Your task to perform on an android device: change notifications settings Image 0: 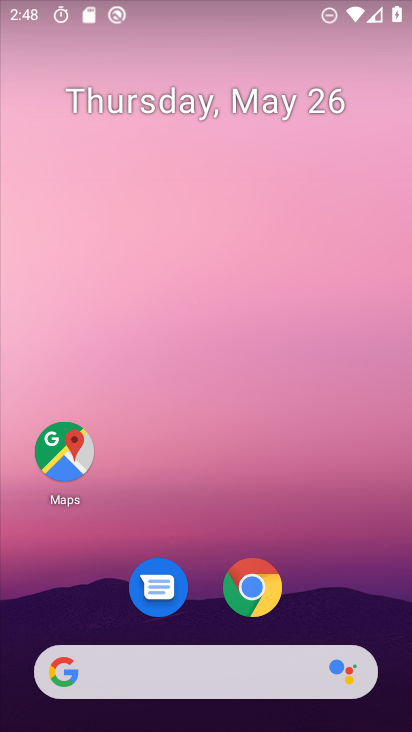
Step 0: drag from (316, 528) to (293, 173)
Your task to perform on an android device: change notifications settings Image 1: 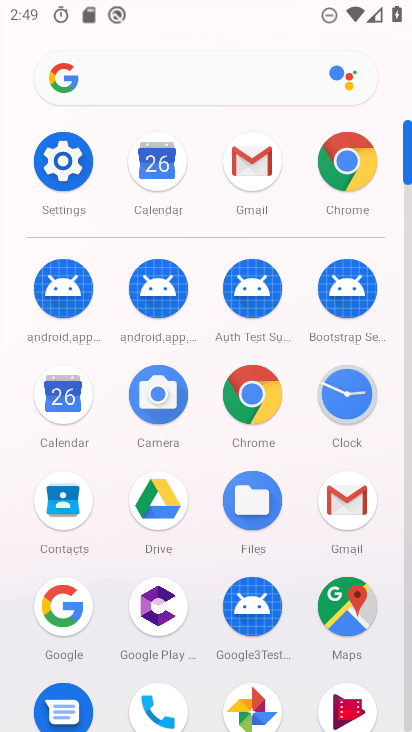
Step 1: click (83, 169)
Your task to perform on an android device: change notifications settings Image 2: 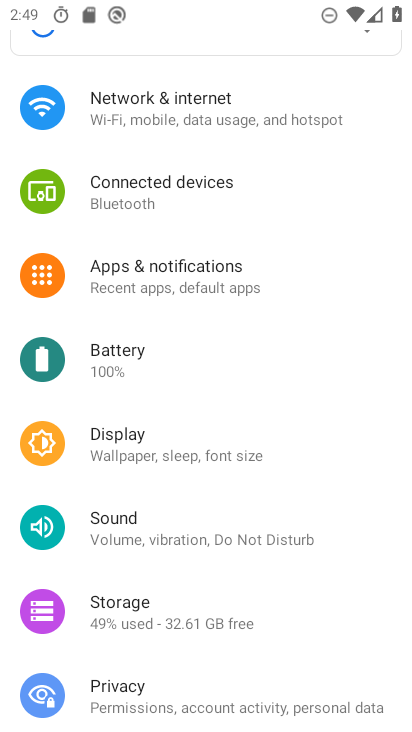
Step 2: click (173, 267)
Your task to perform on an android device: change notifications settings Image 3: 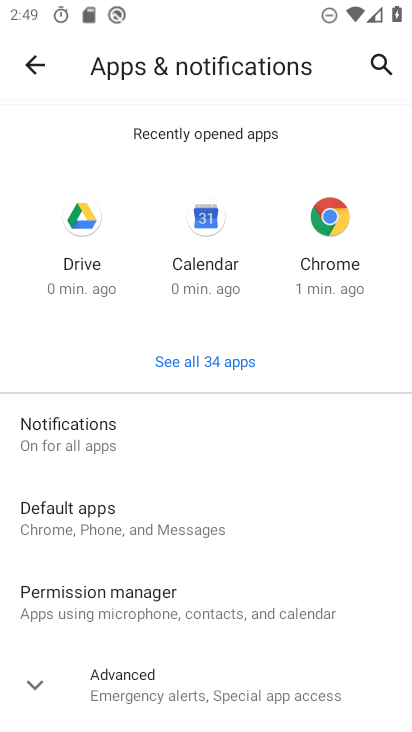
Step 3: click (126, 443)
Your task to perform on an android device: change notifications settings Image 4: 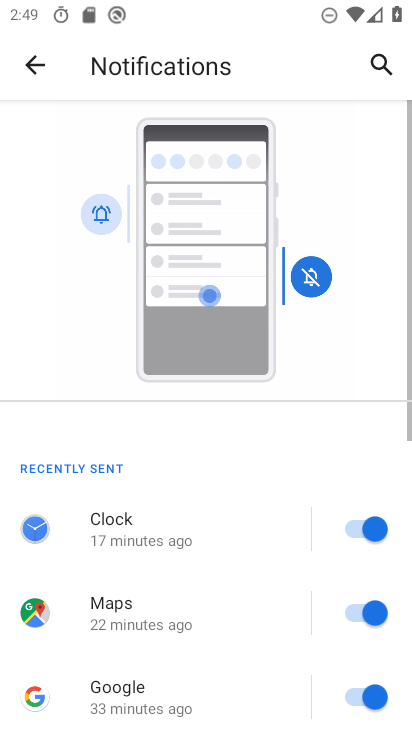
Step 4: drag from (127, 441) to (198, 139)
Your task to perform on an android device: change notifications settings Image 5: 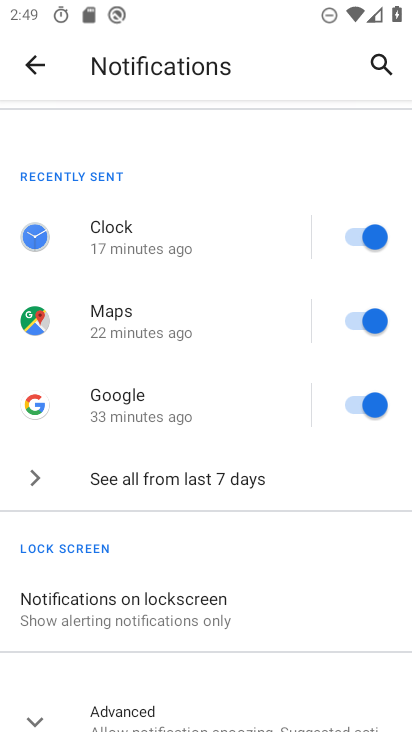
Step 5: drag from (153, 553) to (276, 133)
Your task to perform on an android device: change notifications settings Image 6: 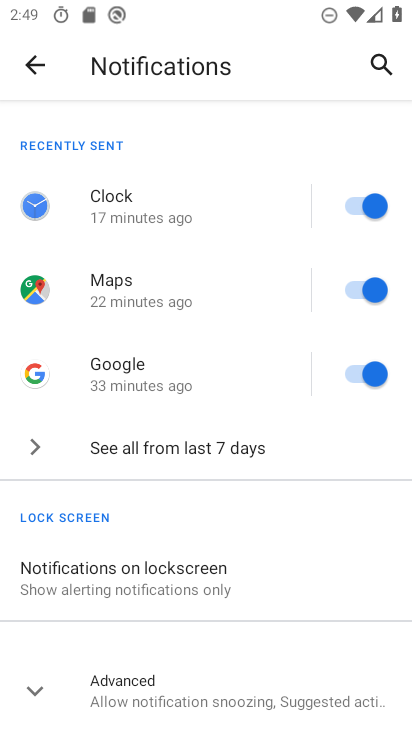
Step 6: click (123, 670)
Your task to perform on an android device: change notifications settings Image 7: 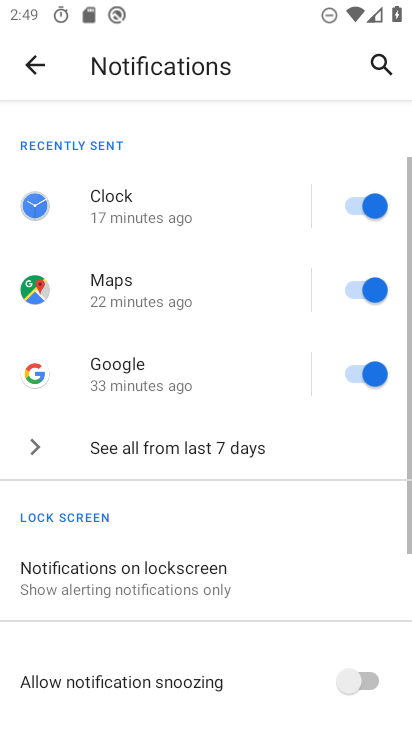
Step 7: drag from (197, 641) to (279, 276)
Your task to perform on an android device: change notifications settings Image 8: 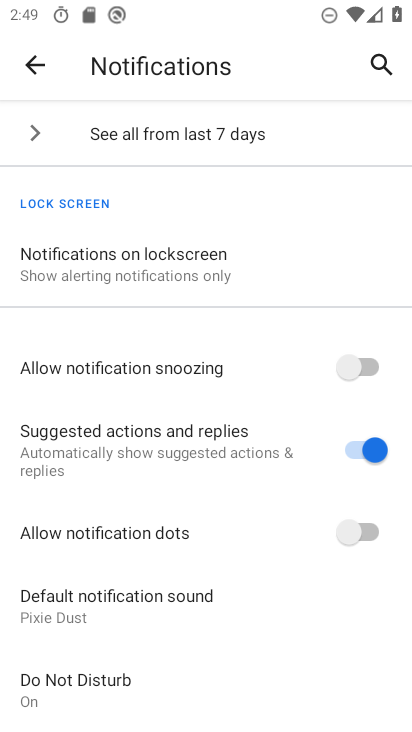
Step 8: click (373, 369)
Your task to perform on an android device: change notifications settings Image 9: 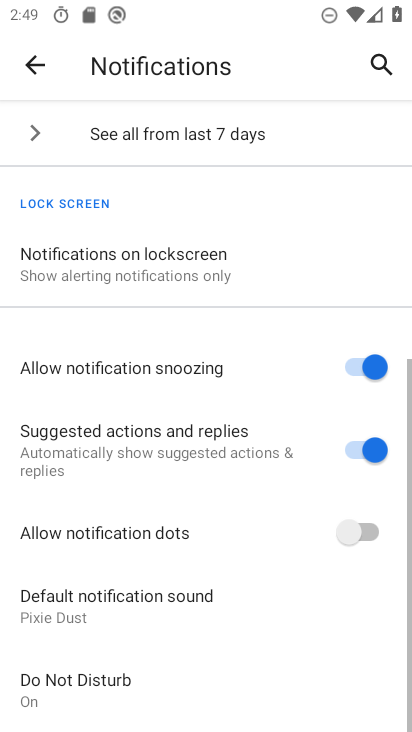
Step 9: task complete